Your task to perform on an android device: open app "Google Play Games" Image 0: 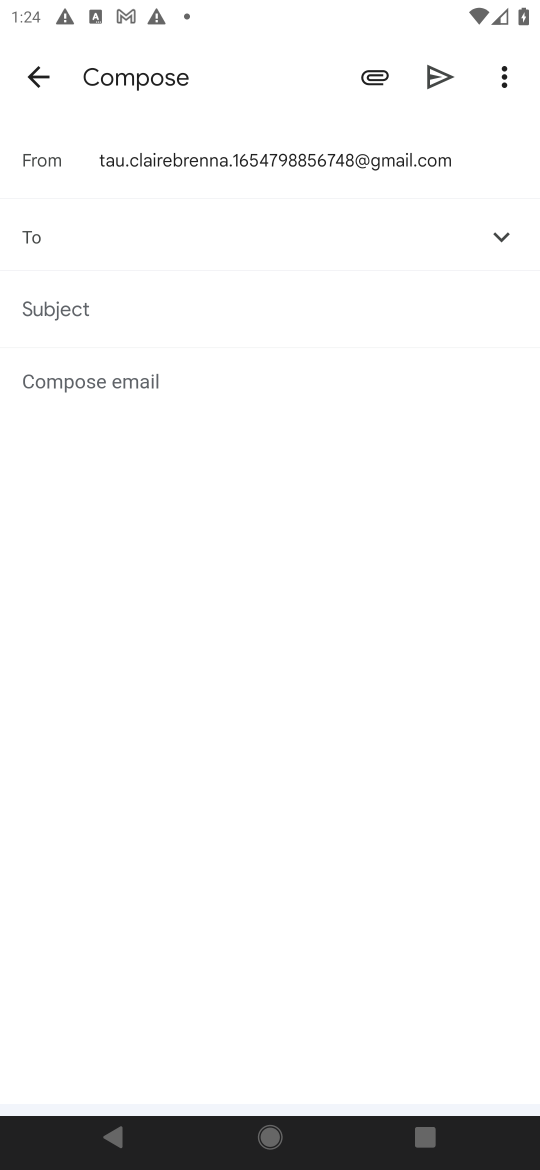
Step 0: press home button
Your task to perform on an android device: open app "Google Play Games" Image 1: 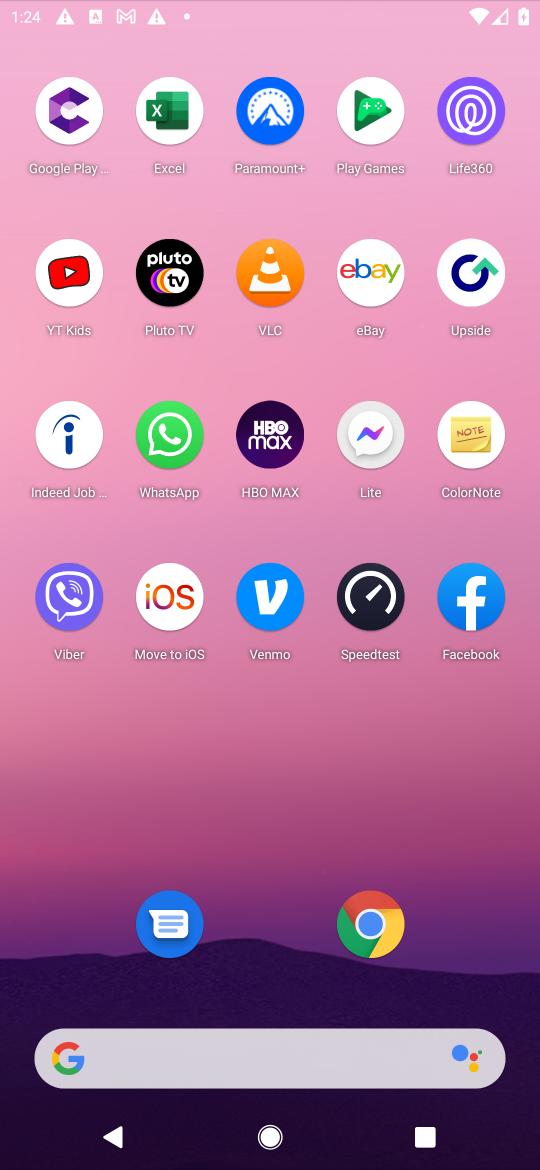
Step 1: press home button
Your task to perform on an android device: open app "Google Play Games" Image 2: 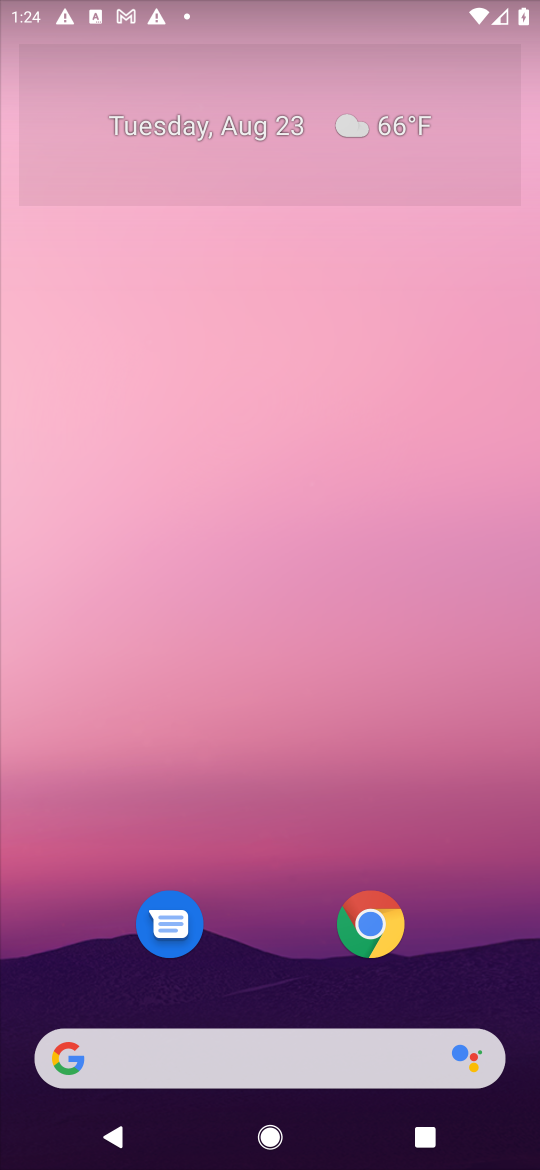
Step 2: drag from (492, 951) to (481, 76)
Your task to perform on an android device: open app "Google Play Games" Image 3: 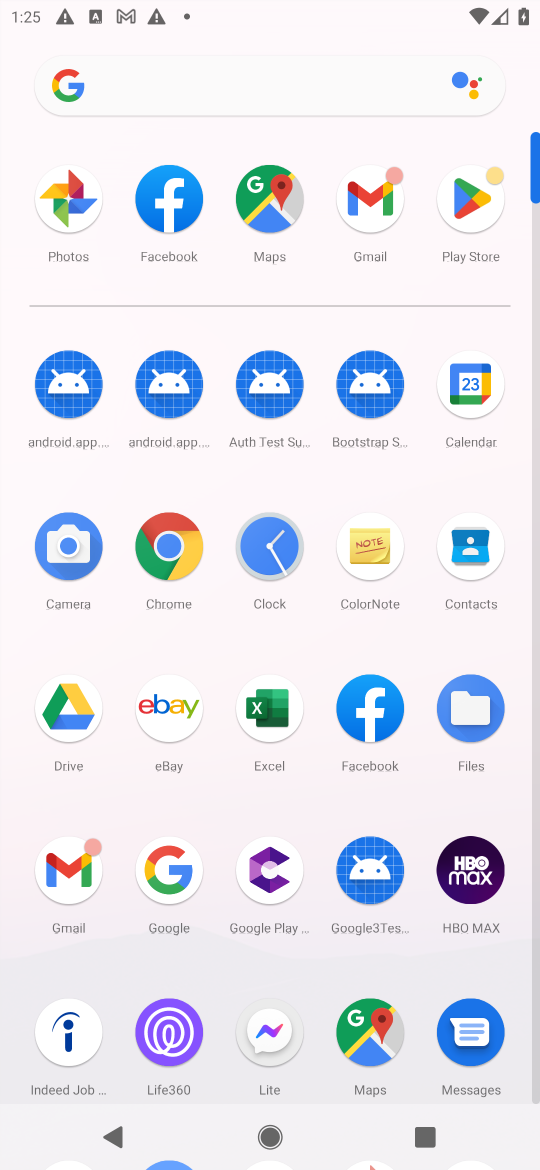
Step 3: click (468, 204)
Your task to perform on an android device: open app "Google Play Games" Image 4: 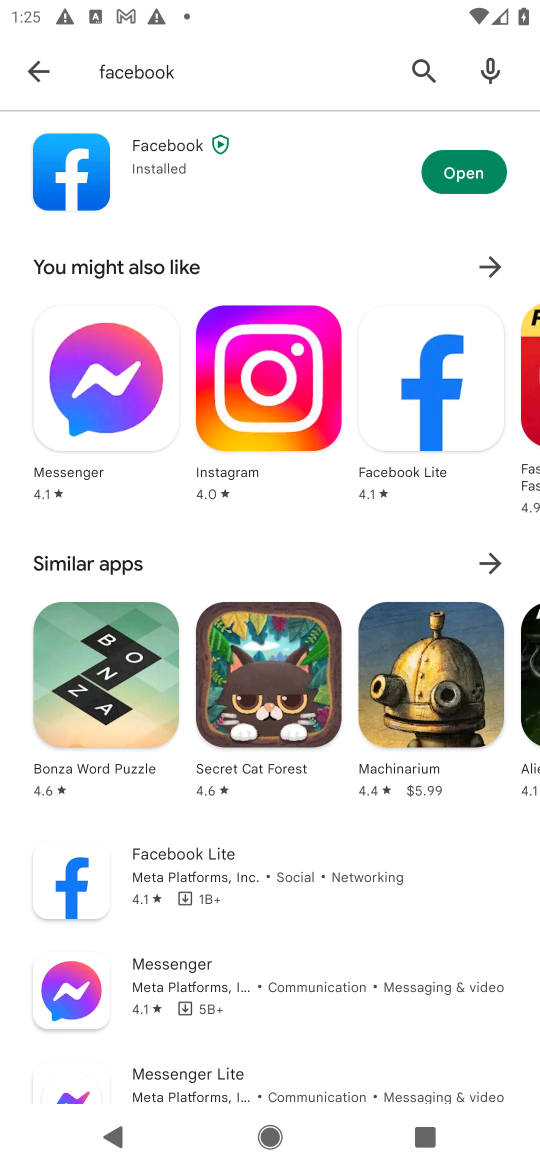
Step 4: press back button
Your task to perform on an android device: open app "Google Play Games" Image 5: 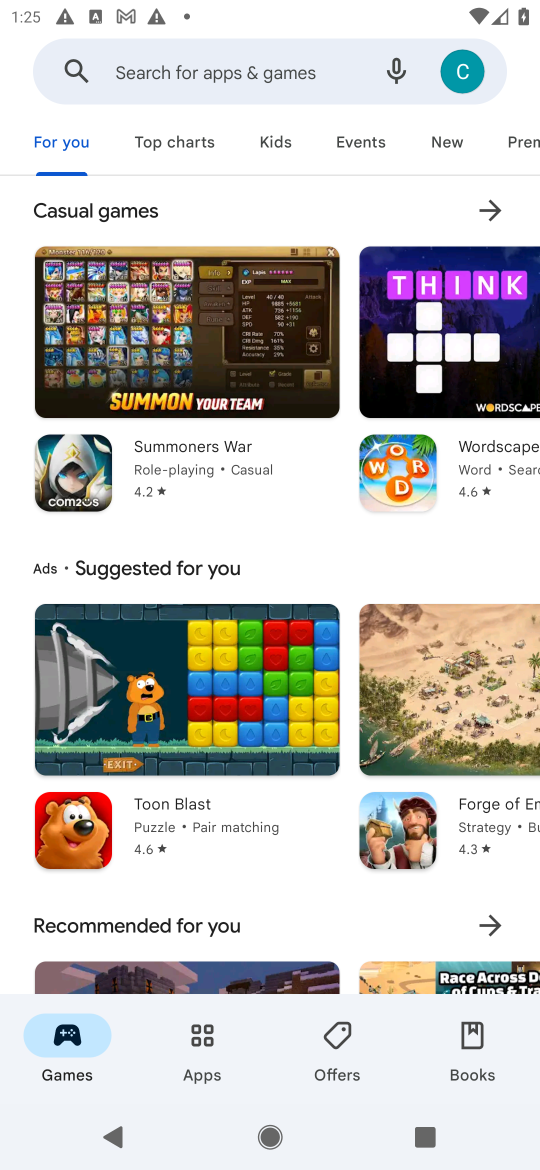
Step 5: click (210, 69)
Your task to perform on an android device: open app "Google Play Games" Image 6: 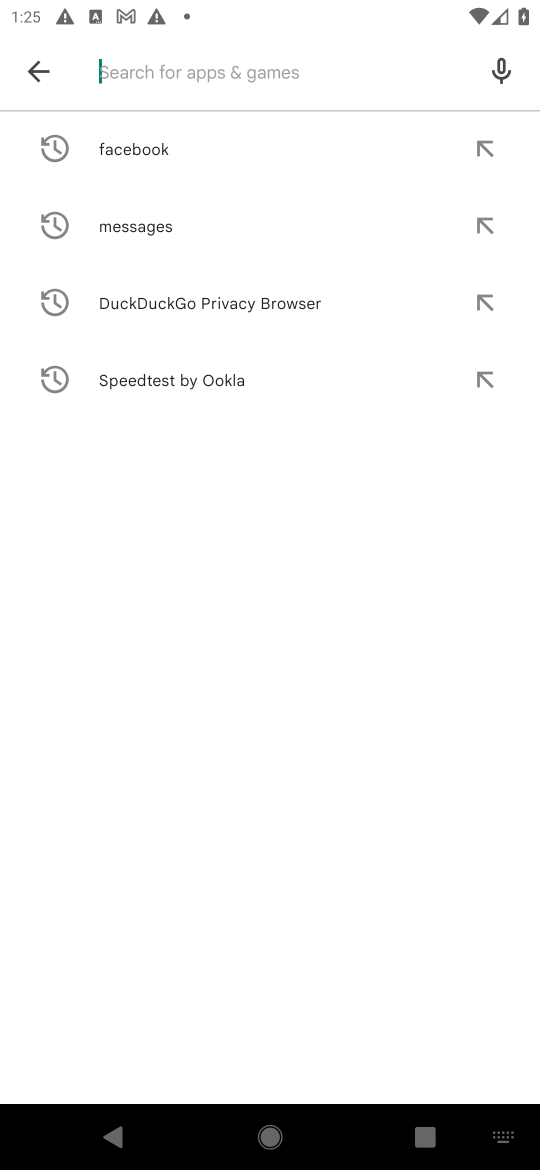
Step 6: type "Google Play Games"
Your task to perform on an android device: open app "Google Play Games" Image 7: 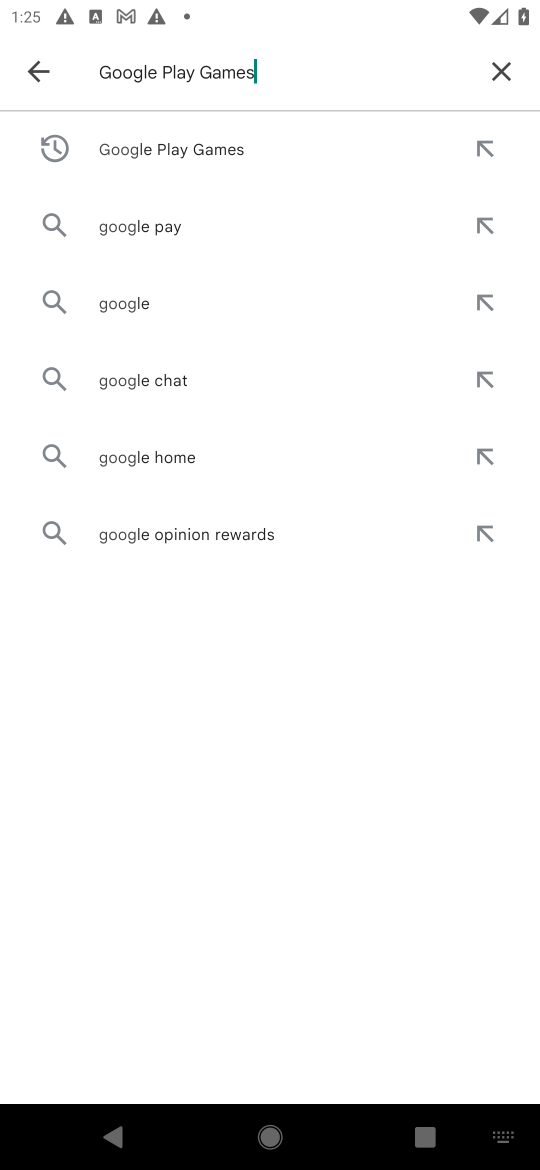
Step 7: press enter
Your task to perform on an android device: open app "Google Play Games" Image 8: 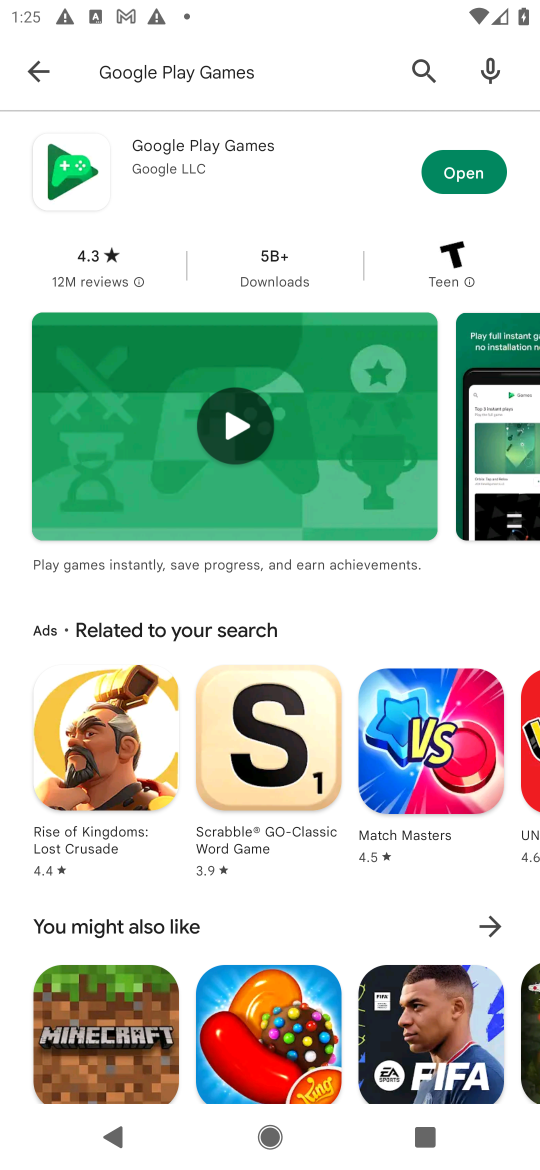
Step 8: click (457, 179)
Your task to perform on an android device: open app "Google Play Games" Image 9: 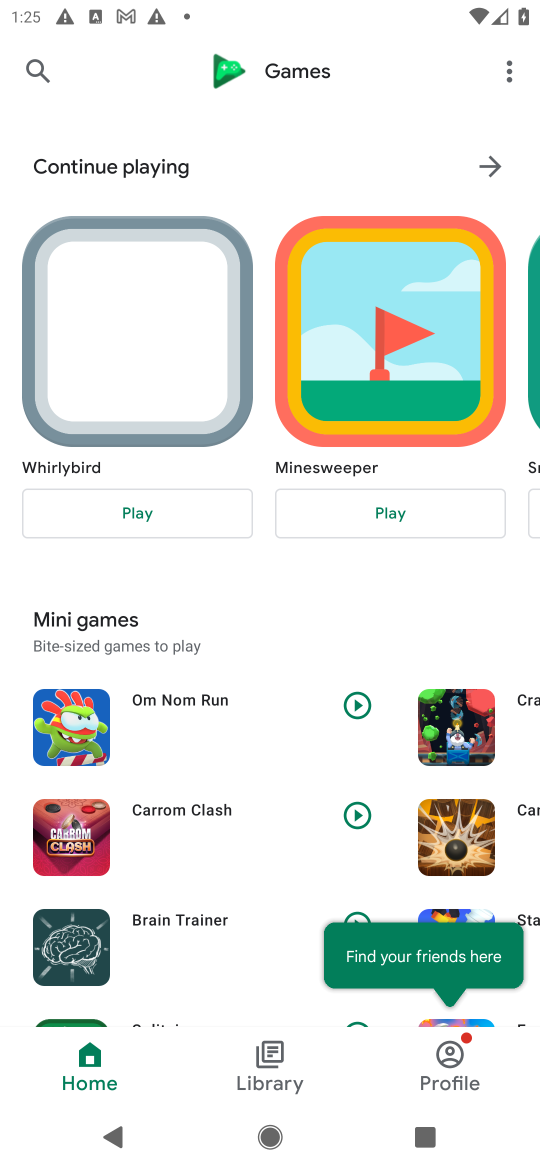
Step 9: task complete